Your task to perform on an android device: see tabs open on other devices in the chrome app Image 0: 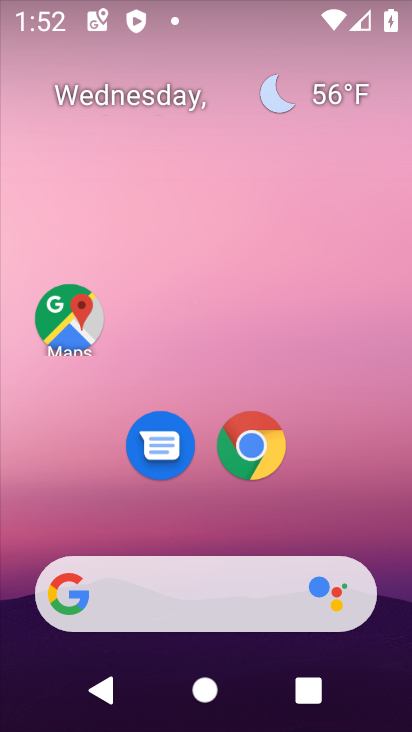
Step 0: click (237, 429)
Your task to perform on an android device: see tabs open on other devices in the chrome app Image 1: 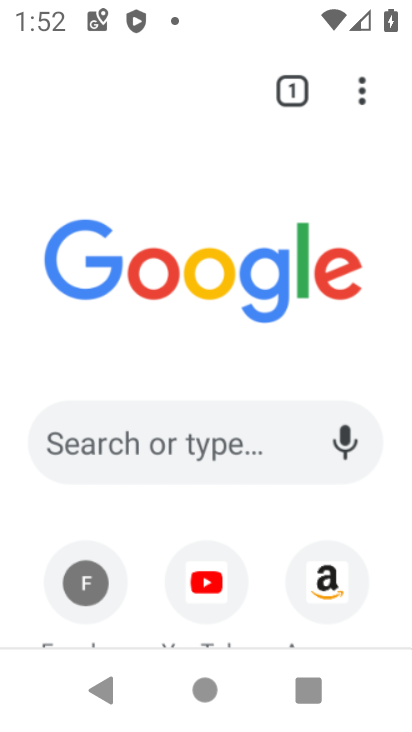
Step 1: click (262, 97)
Your task to perform on an android device: see tabs open on other devices in the chrome app Image 2: 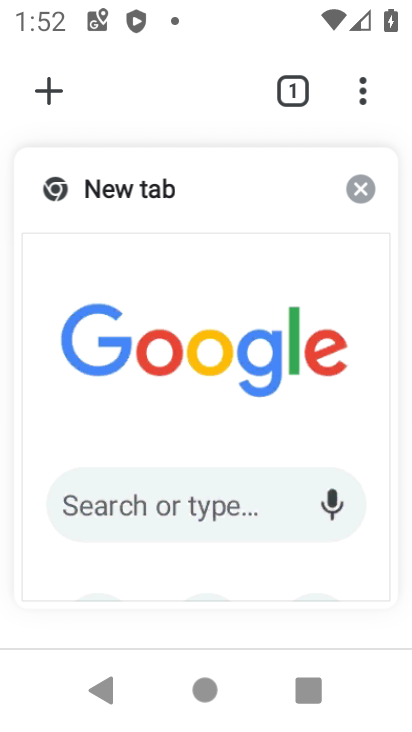
Step 2: task complete